Your task to perform on an android device: snooze an email in the gmail app Image 0: 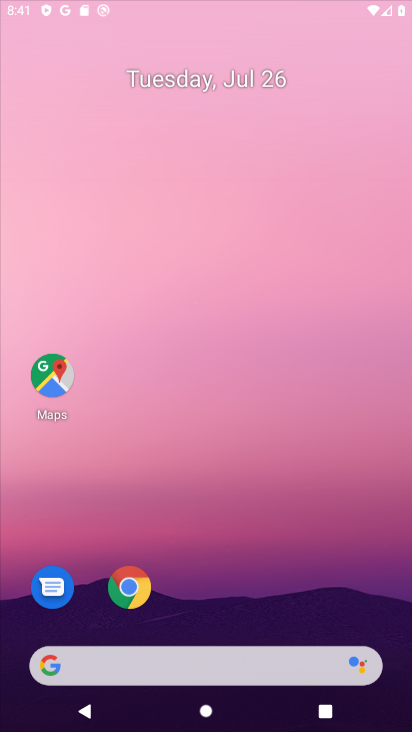
Step 0: press home button
Your task to perform on an android device: snooze an email in the gmail app Image 1: 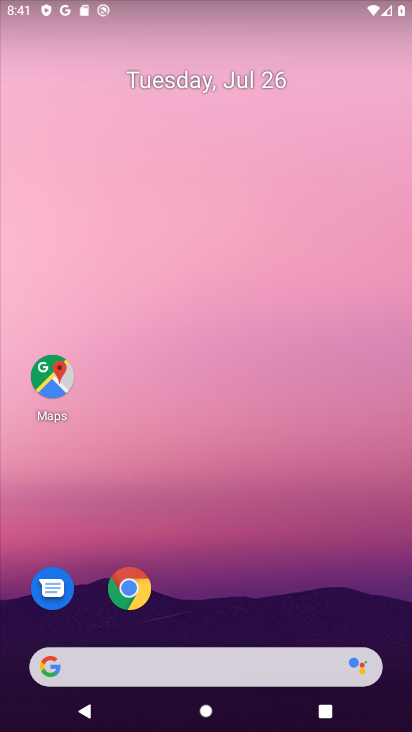
Step 1: drag from (208, 621) to (160, 3)
Your task to perform on an android device: snooze an email in the gmail app Image 2: 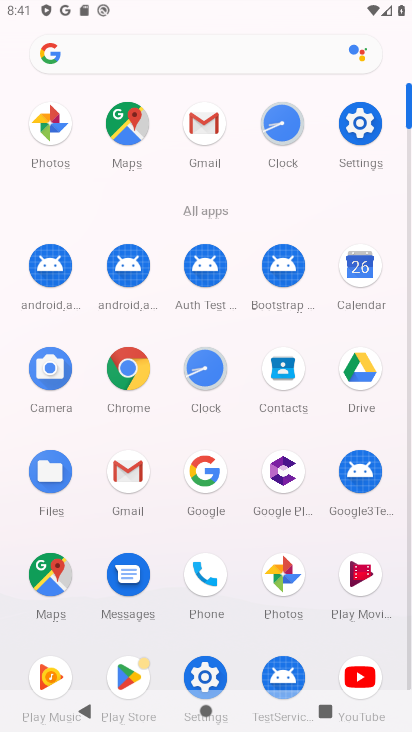
Step 2: click (200, 118)
Your task to perform on an android device: snooze an email in the gmail app Image 3: 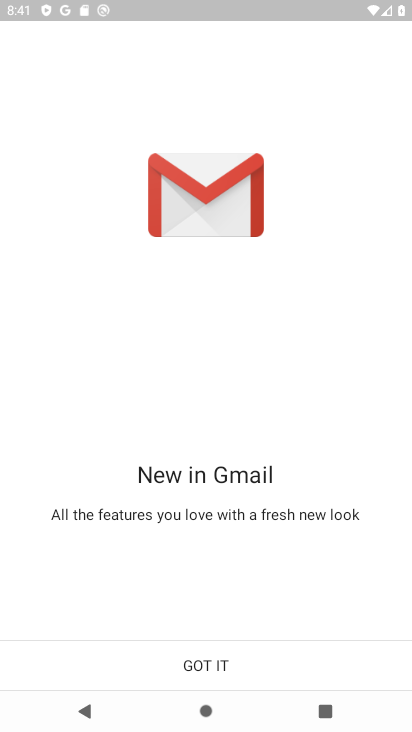
Step 3: click (209, 675)
Your task to perform on an android device: snooze an email in the gmail app Image 4: 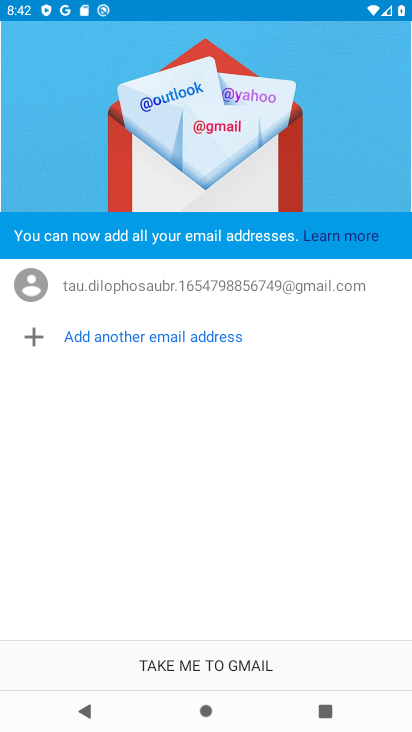
Step 4: click (202, 671)
Your task to perform on an android device: snooze an email in the gmail app Image 5: 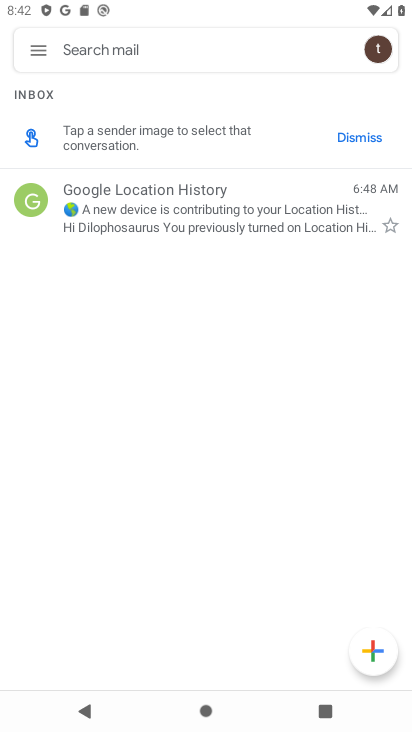
Step 5: click (30, 193)
Your task to perform on an android device: snooze an email in the gmail app Image 6: 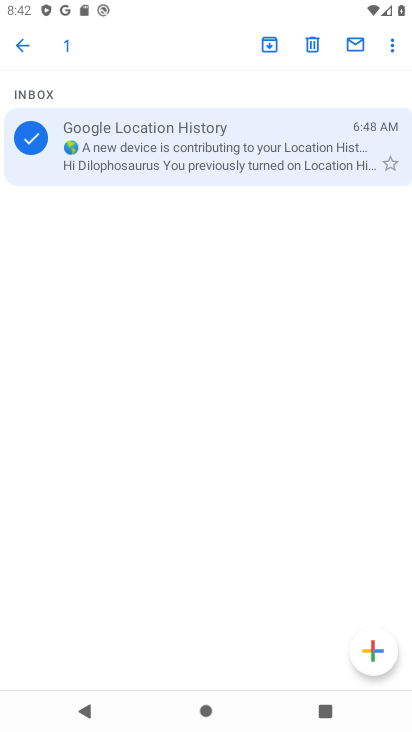
Step 6: click (392, 45)
Your task to perform on an android device: snooze an email in the gmail app Image 7: 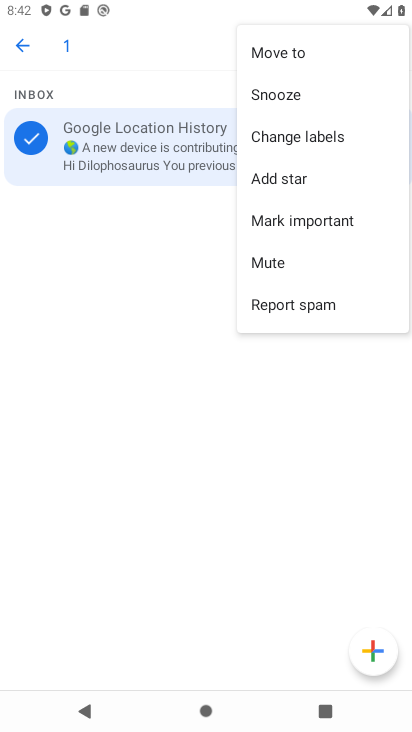
Step 7: click (290, 99)
Your task to perform on an android device: snooze an email in the gmail app Image 8: 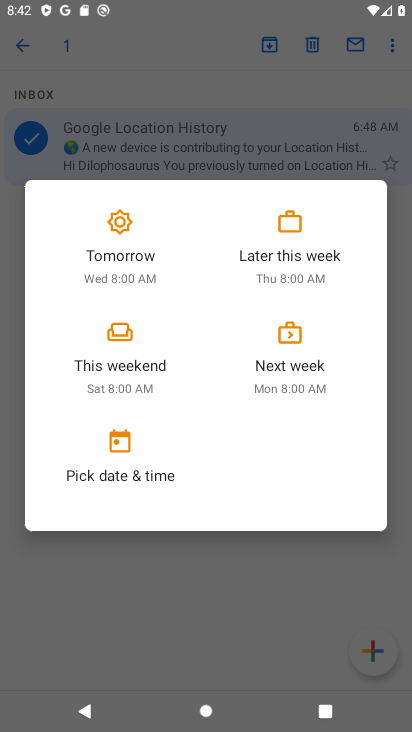
Step 8: click (292, 336)
Your task to perform on an android device: snooze an email in the gmail app Image 9: 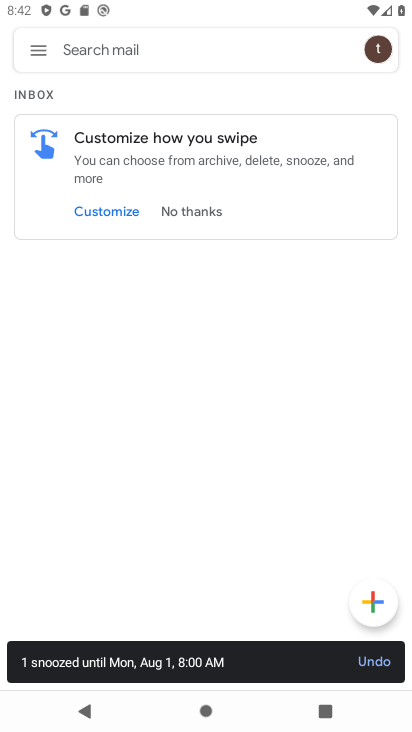
Step 9: task complete